Your task to perform on an android device: turn off location Image 0: 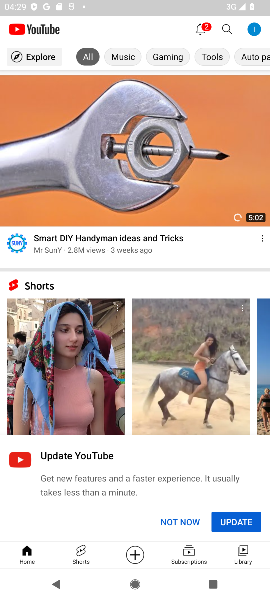
Step 0: press home button
Your task to perform on an android device: turn off location Image 1: 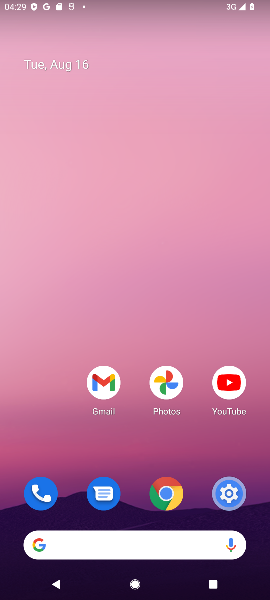
Step 1: drag from (72, 484) to (68, 138)
Your task to perform on an android device: turn off location Image 2: 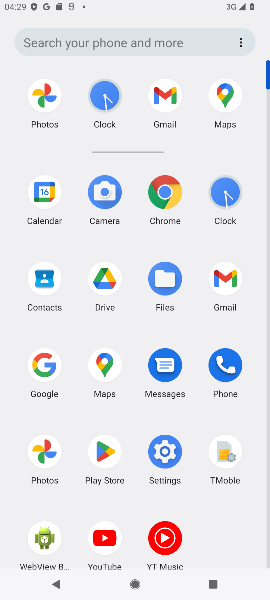
Step 2: click (161, 459)
Your task to perform on an android device: turn off location Image 3: 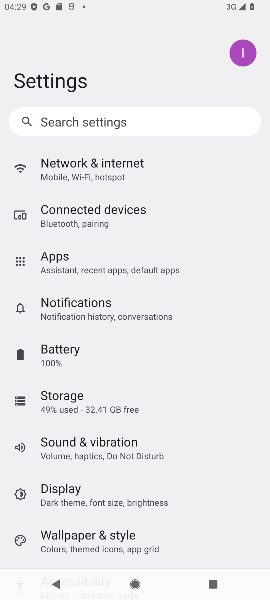
Step 3: drag from (224, 507) to (226, 420)
Your task to perform on an android device: turn off location Image 4: 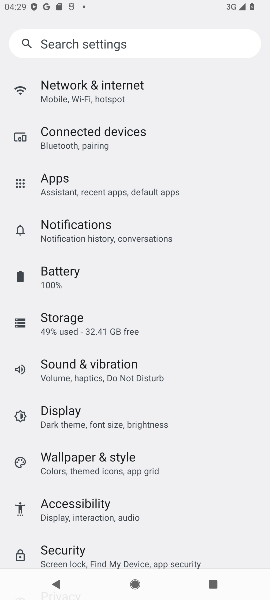
Step 4: drag from (216, 503) to (225, 407)
Your task to perform on an android device: turn off location Image 5: 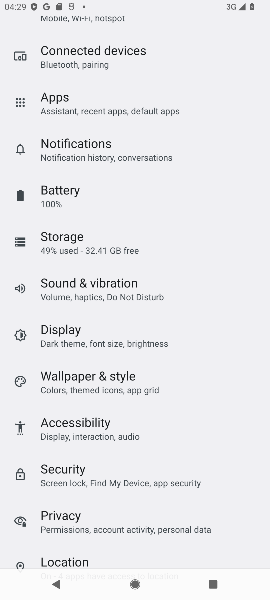
Step 5: drag from (225, 525) to (231, 414)
Your task to perform on an android device: turn off location Image 6: 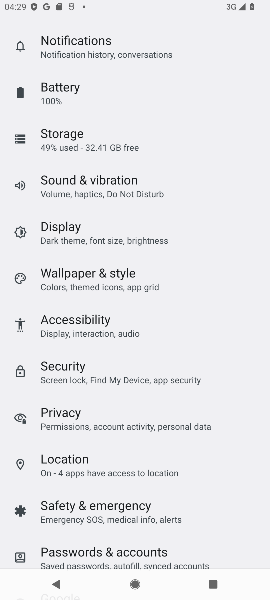
Step 6: drag from (224, 518) to (233, 373)
Your task to perform on an android device: turn off location Image 7: 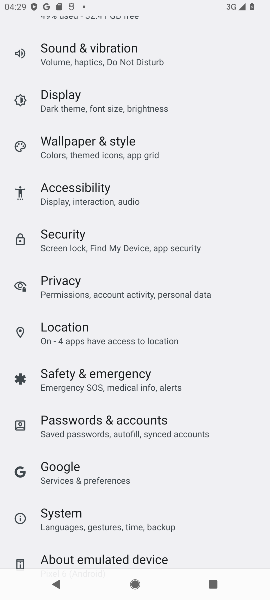
Step 7: drag from (227, 493) to (227, 335)
Your task to perform on an android device: turn off location Image 8: 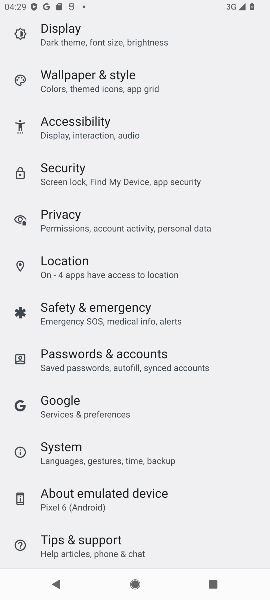
Step 8: drag from (242, 160) to (240, 261)
Your task to perform on an android device: turn off location Image 9: 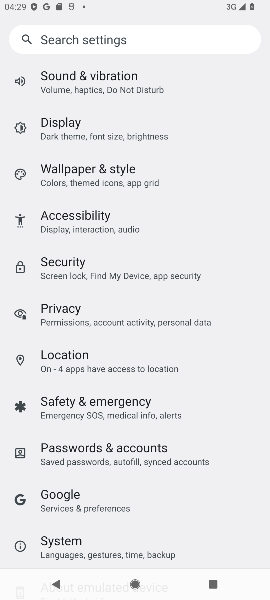
Step 9: drag from (230, 173) to (230, 332)
Your task to perform on an android device: turn off location Image 10: 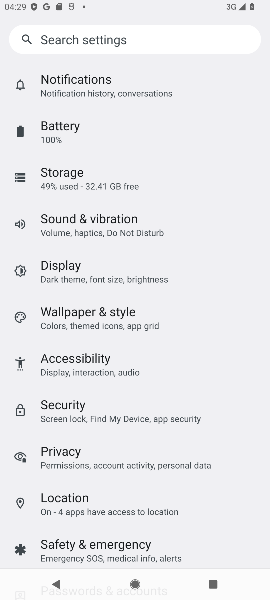
Step 10: click (184, 496)
Your task to perform on an android device: turn off location Image 11: 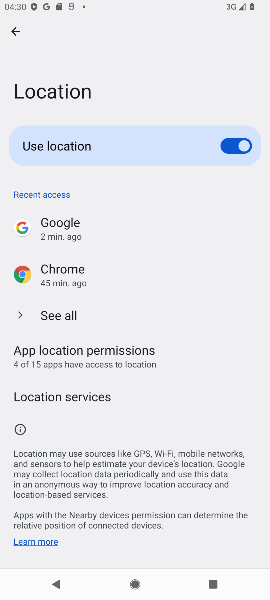
Step 11: drag from (211, 475) to (210, 309)
Your task to perform on an android device: turn off location Image 12: 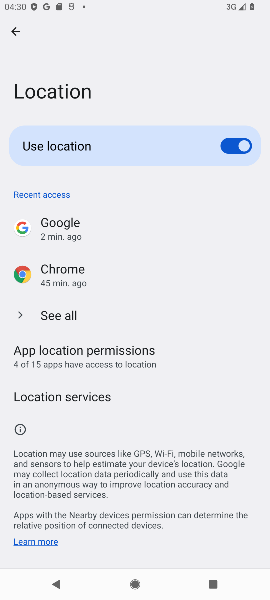
Step 12: click (143, 395)
Your task to perform on an android device: turn off location Image 13: 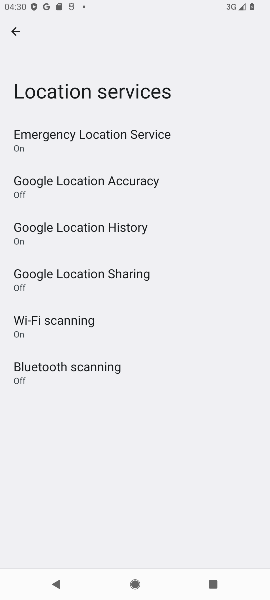
Step 13: click (15, 32)
Your task to perform on an android device: turn off location Image 14: 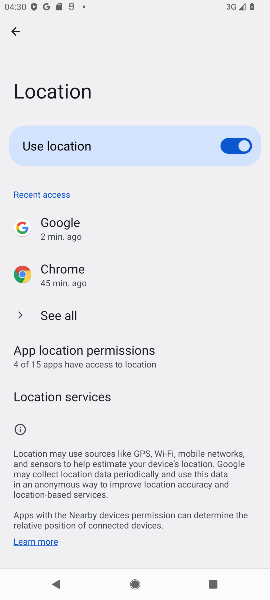
Step 14: click (222, 136)
Your task to perform on an android device: turn off location Image 15: 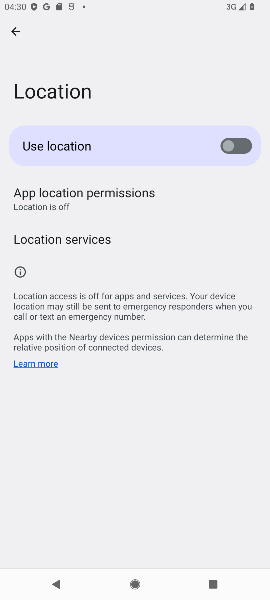
Step 15: task complete